Your task to perform on an android device: find which apps use the phone's location Image 0: 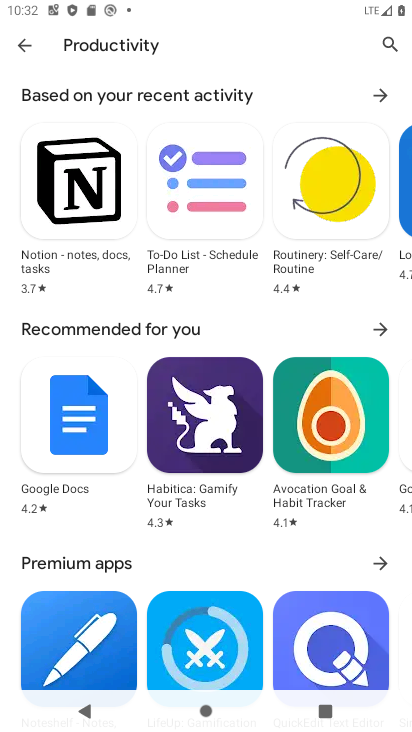
Step 0: press home button
Your task to perform on an android device: find which apps use the phone's location Image 1: 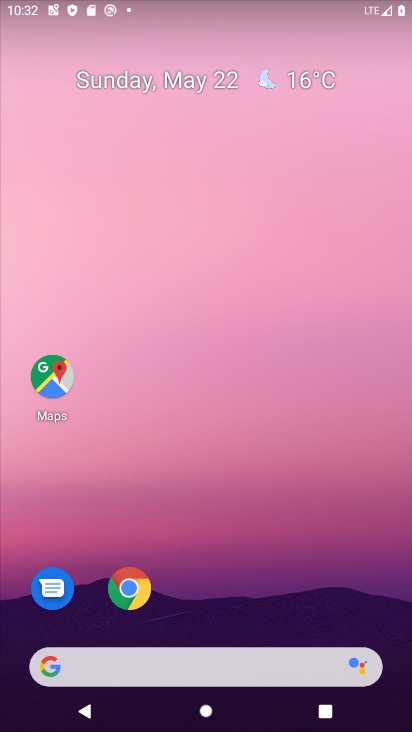
Step 1: drag from (200, 611) to (226, 227)
Your task to perform on an android device: find which apps use the phone's location Image 2: 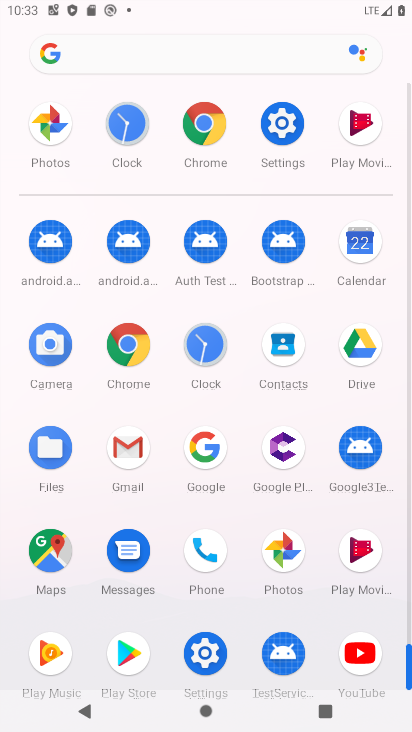
Step 2: click (270, 141)
Your task to perform on an android device: find which apps use the phone's location Image 3: 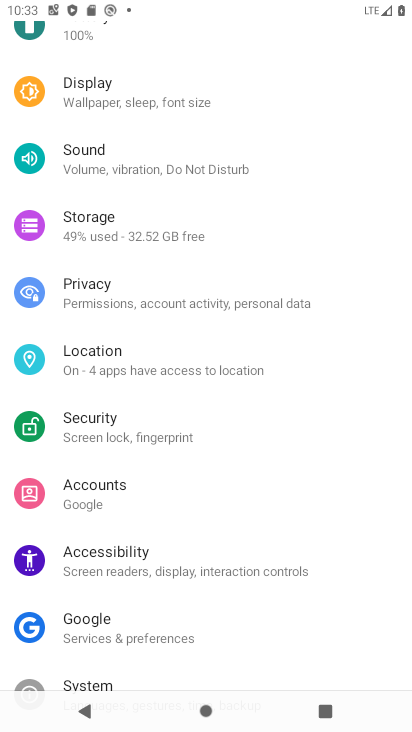
Step 3: click (163, 365)
Your task to perform on an android device: find which apps use the phone's location Image 4: 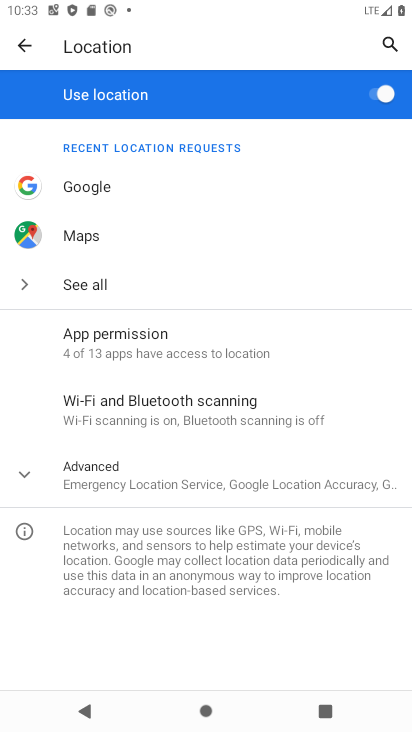
Step 4: click (179, 365)
Your task to perform on an android device: find which apps use the phone's location Image 5: 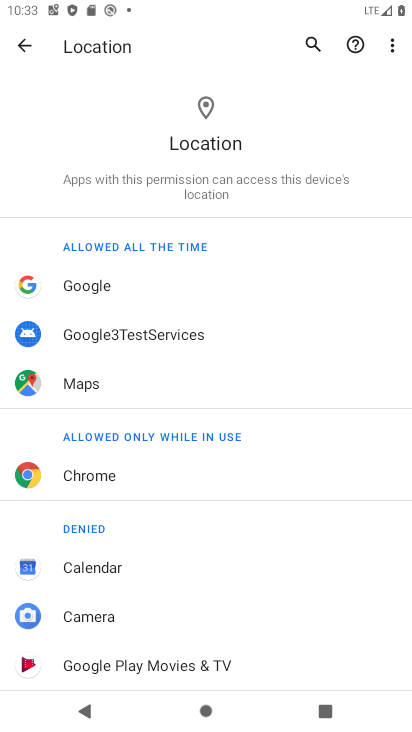
Step 5: task complete